Your task to perform on an android device: turn off smart reply in the gmail app Image 0: 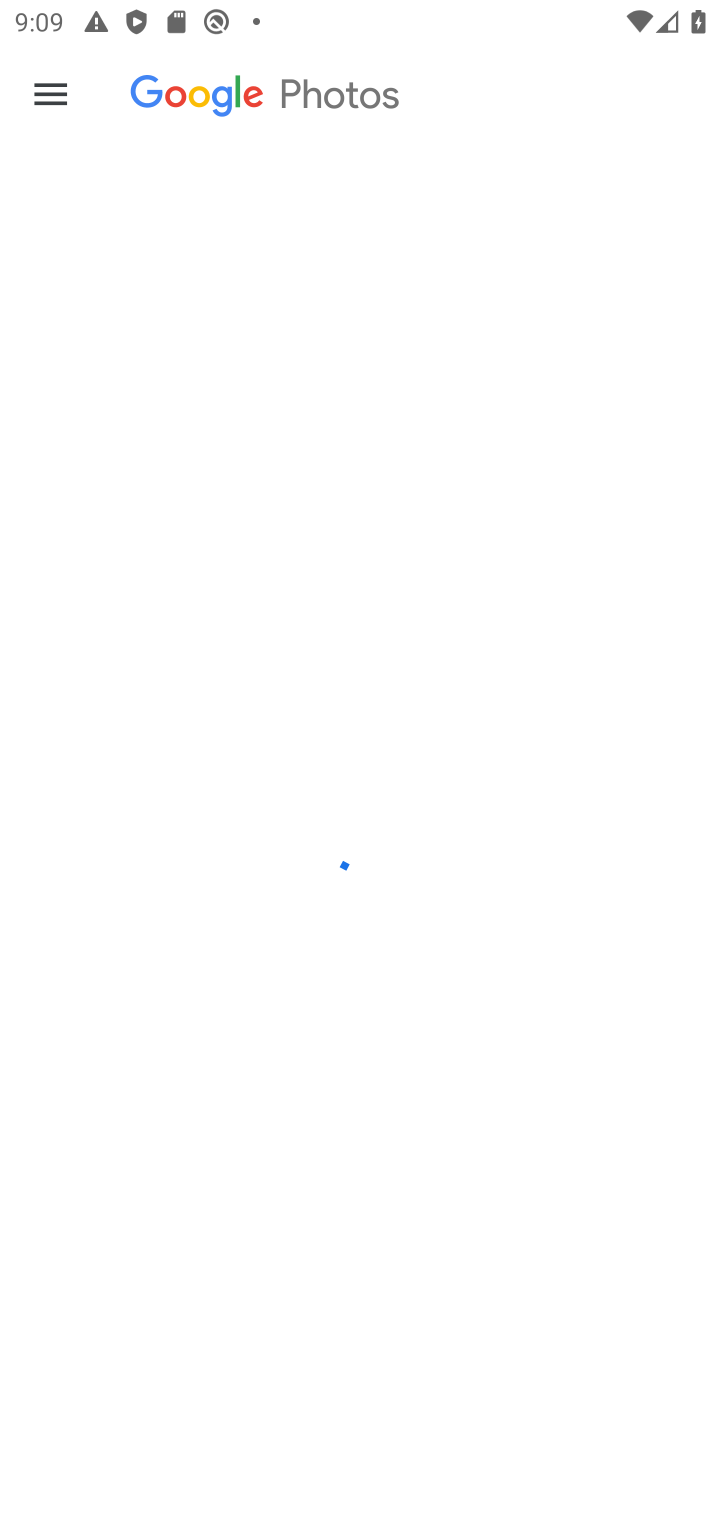
Step 0: press home button
Your task to perform on an android device: turn off smart reply in the gmail app Image 1: 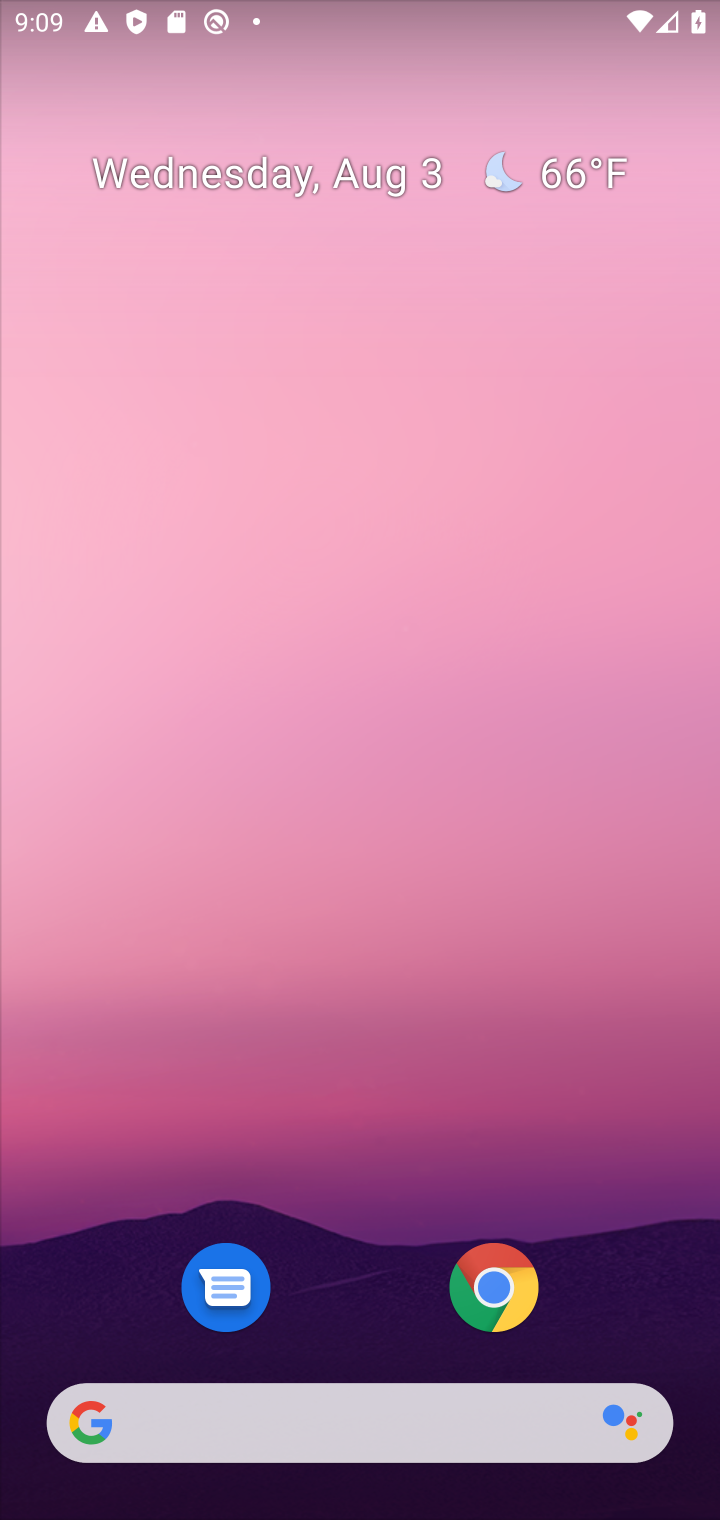
Step 1: drag from (364, 1250) to (468, 79)
Your task to perform on an android device: turn off smart reply in the gmail app Image 2: 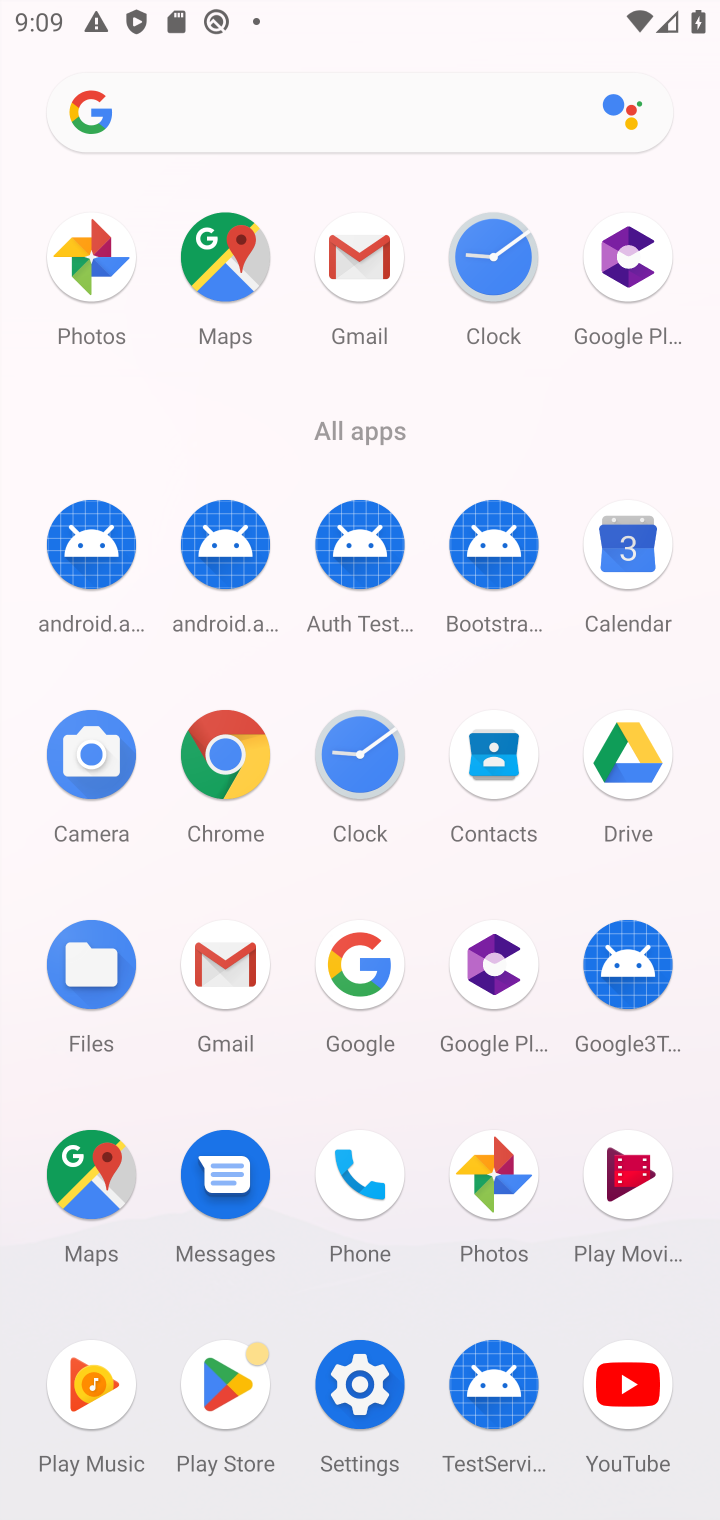
Step 2: click (238, 935)
Your task to perform on an android device: turn off smart reply in the gmail app Image 3: 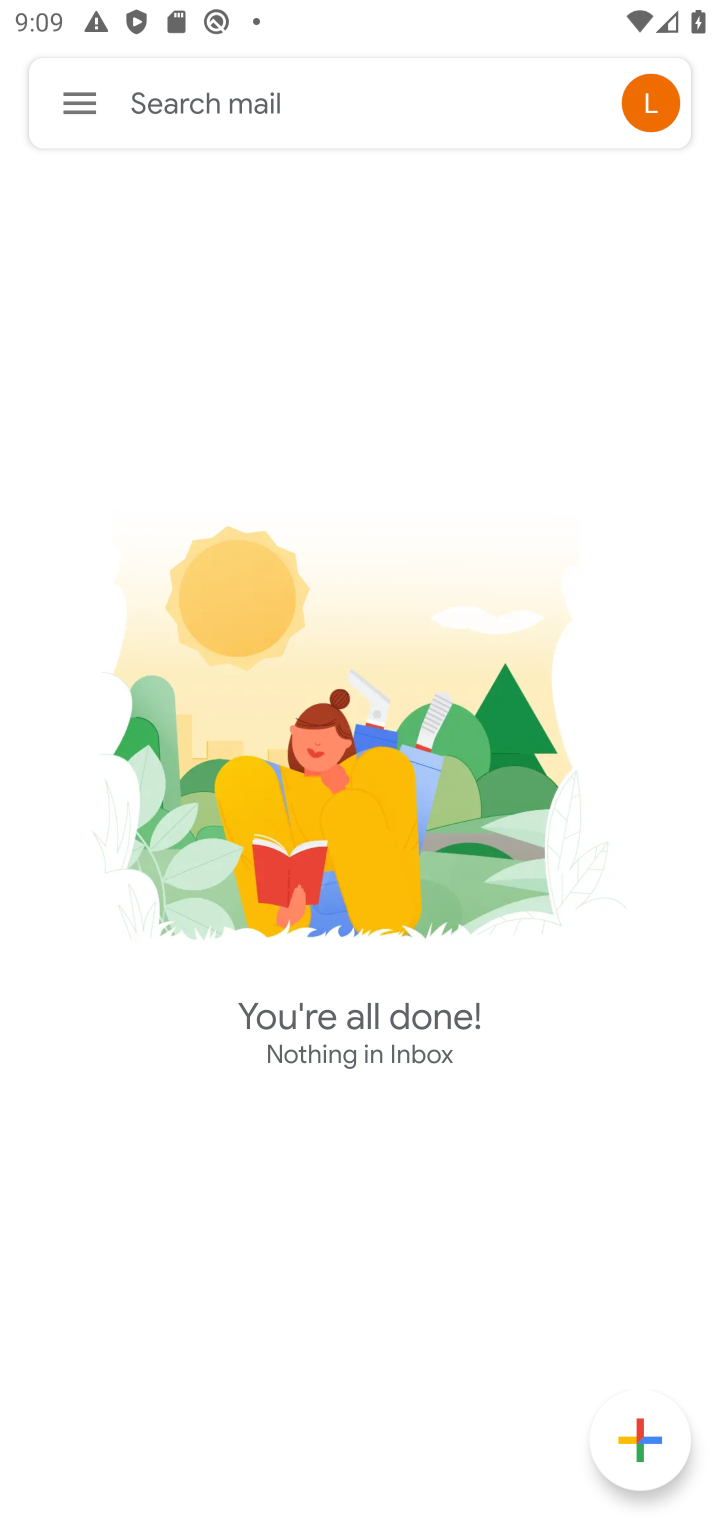
Step 3: click (73, 84)
Your task to perform on an android device: turn off smart reply in the gmail app Image 4: 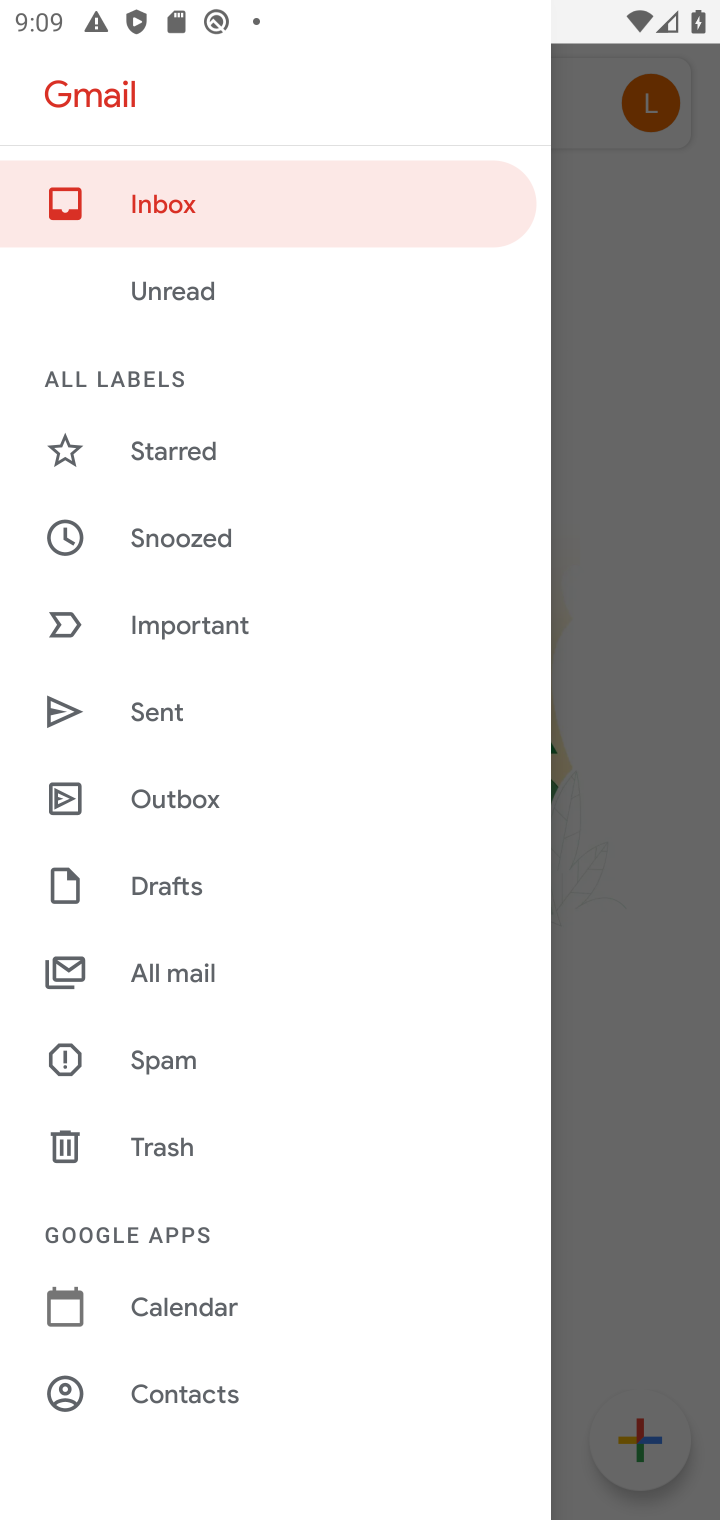
Step 4: drag from (272, 1239) to (272, 460)
Your task to perform on an android device: turn off smart reply in the gmail app Image 5: 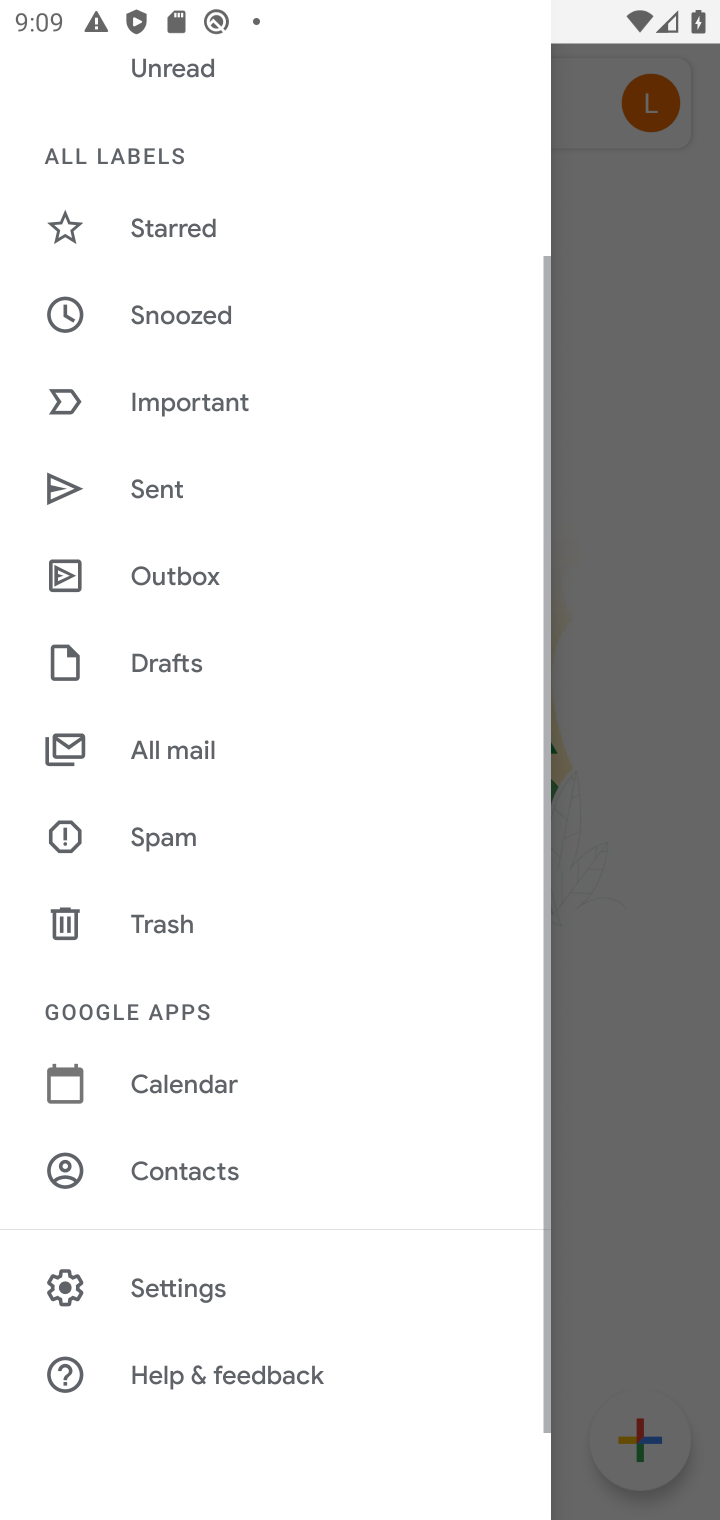
Step 5: click (152, 1283)
Your task to perform on an android device: turn off smart reply in the gmail app Image 6: 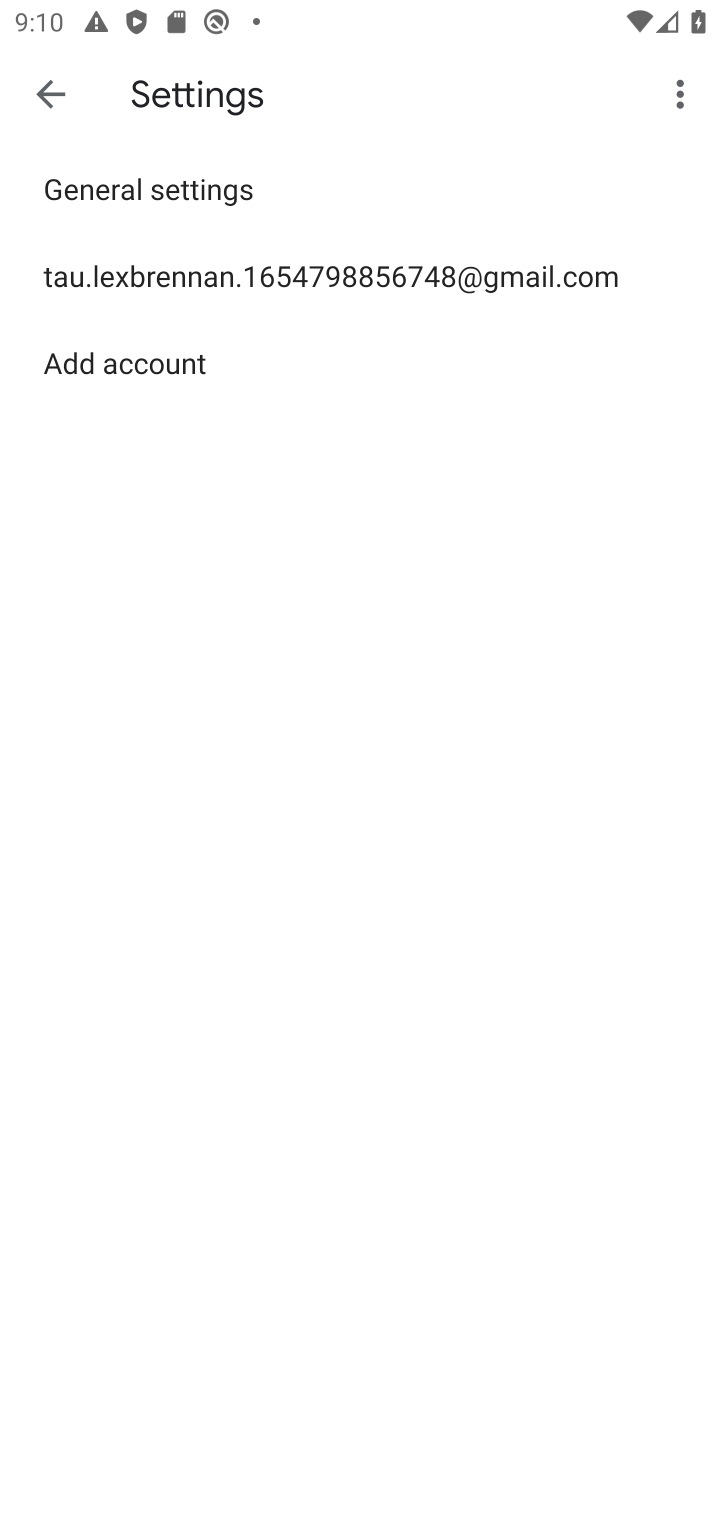
Step 6: click (222, 276)
Your task to perform on an android device: turn off smart reply in the gmail app Image 7: 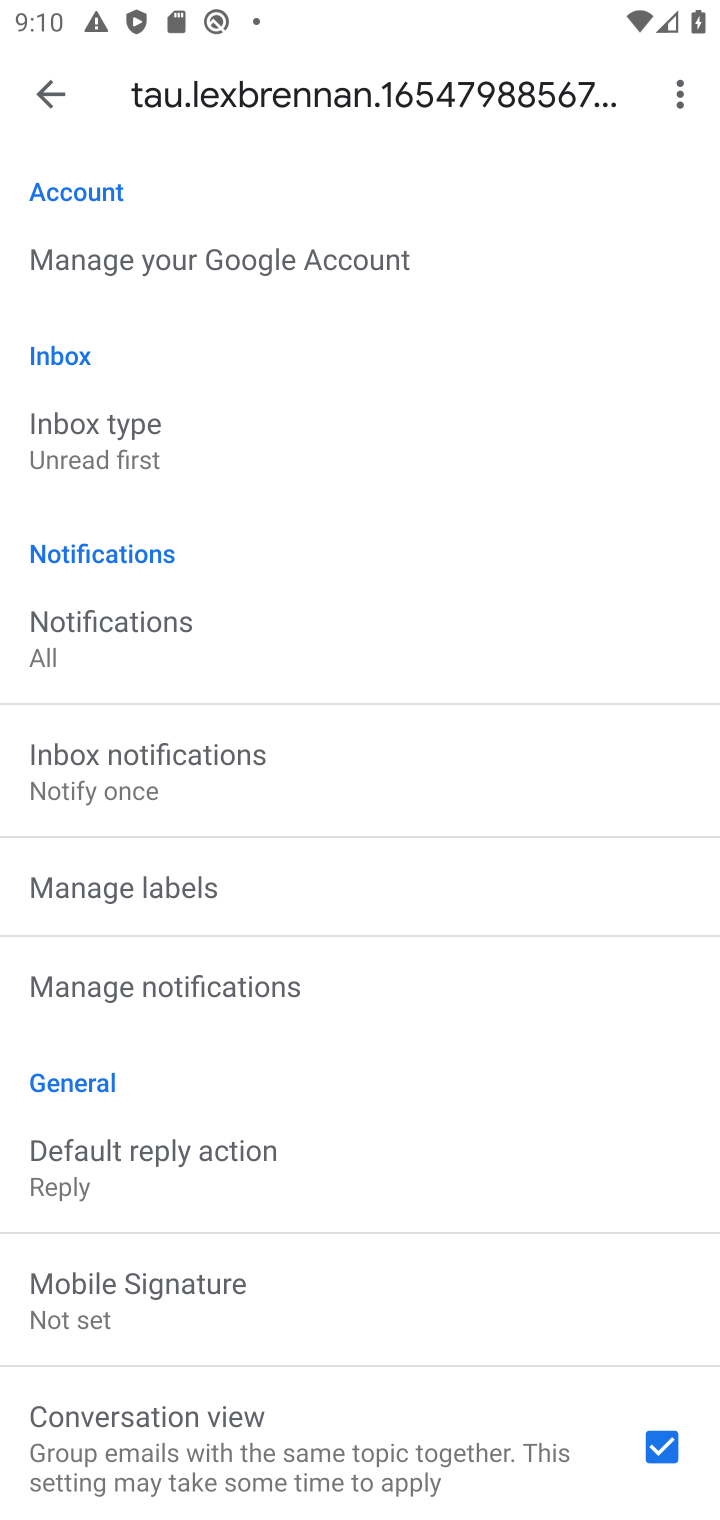
Step 7: drag from (441, 1239) to (322, 441)
Your task to perform on an android device: turn off smart reply in the gmail app Image 8: 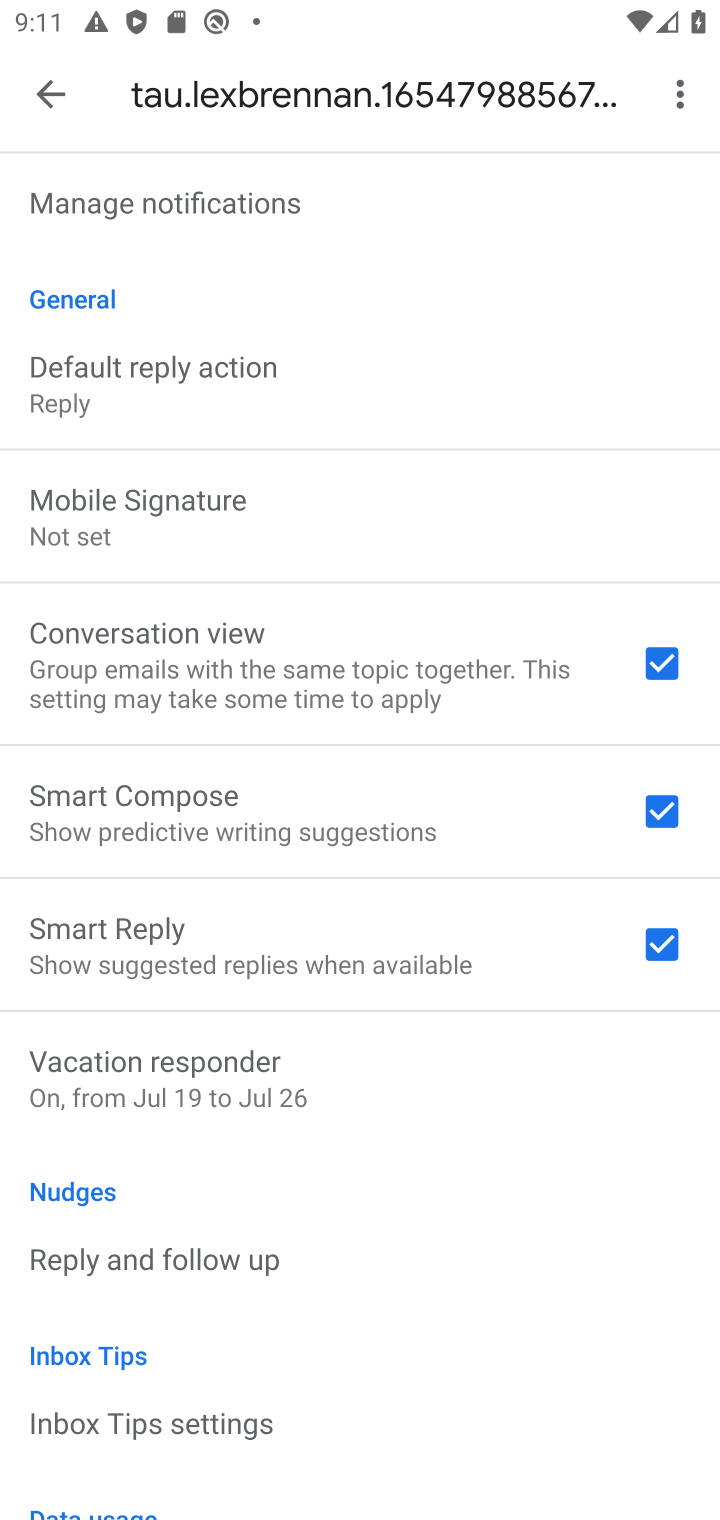
Step 8: click (522, 934)
Your task to perform on an android device: turn off smart reply in the gmail app Image 9: 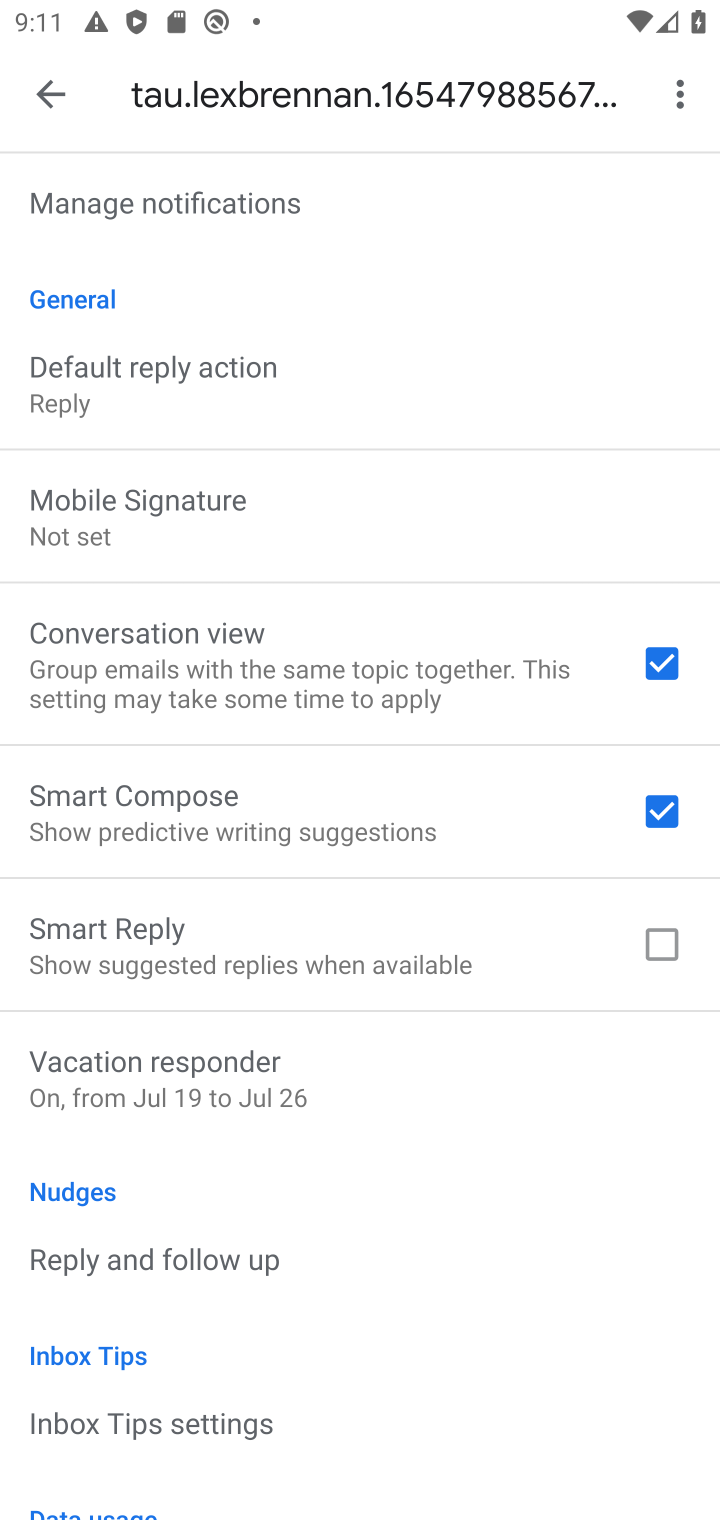
Step 9: task complete